Your task to perform on an android device: Go to calendar. Show me events next week Image 0: 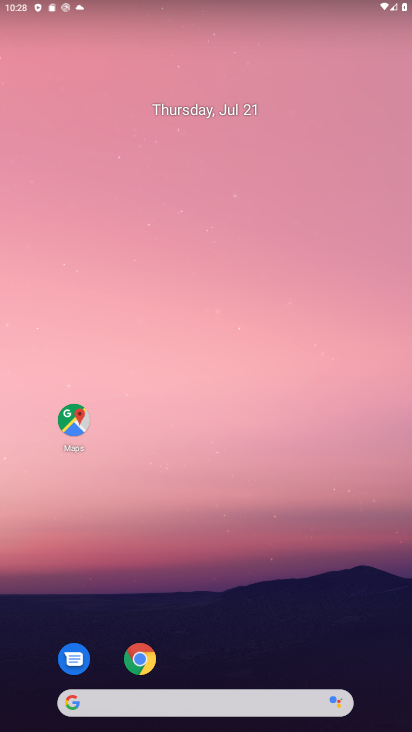
Step 0: drag from (302, 672) to (264, 120)
Your task to perform on an android device: Go to calendar. Show me events next week Image 1: 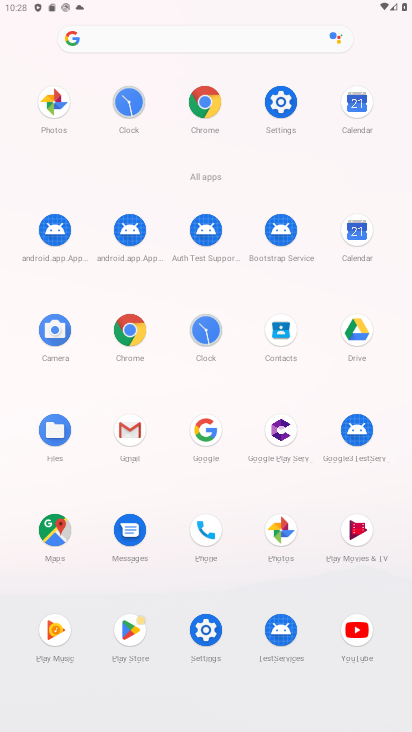
Step 1: click (331, 111)
Your task to perform on an android device: Go to calendar. Show me events next week Image 2: 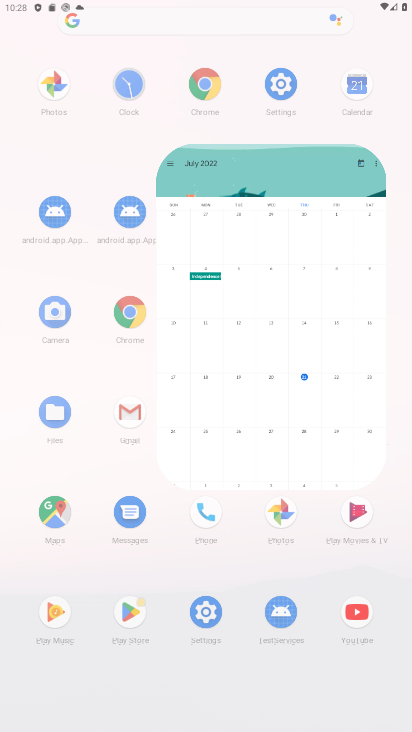
Step 2: task complete